Your task to perform on an android device: Open Google Maps and go to "Timeline" Image 0: 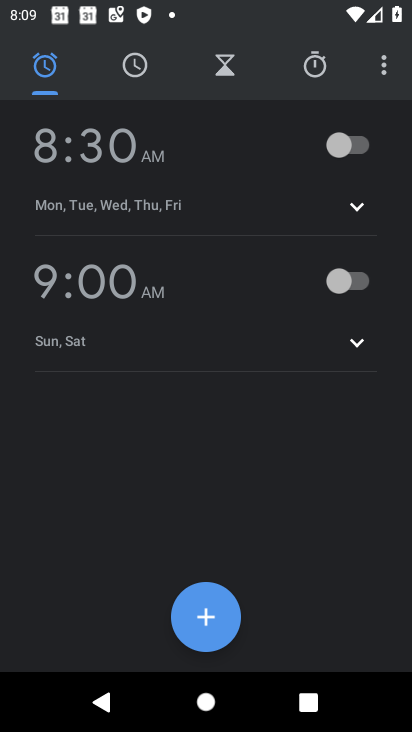
Step 0: press home button
Your task to perform on an android device: Open Google Maps and go to "Timeline" Image 1: 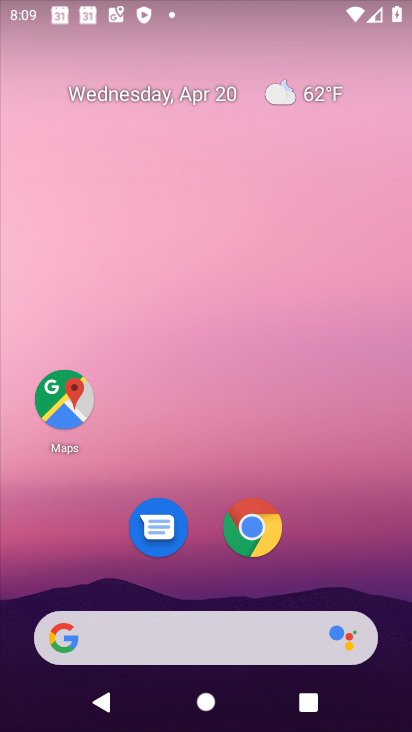
Step 1: click (65, 403)
Your task to perform on an android device: Open Google Maps and go to "Timeline" Image 2: 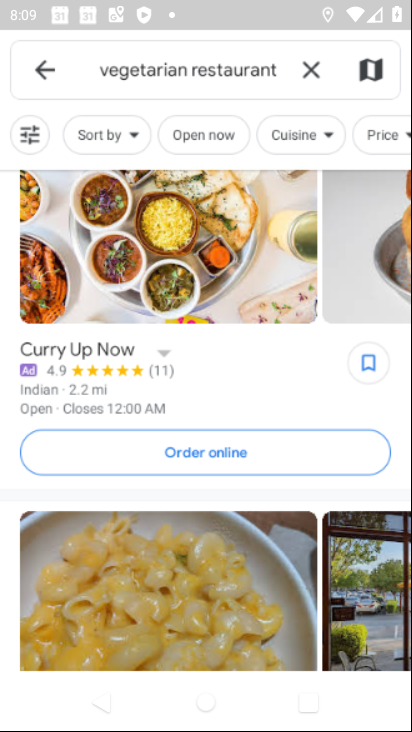
Step 2: click (319, 78)
Your task to perform on an android device: Open Google Maps and go to "Timeline" Image 3: 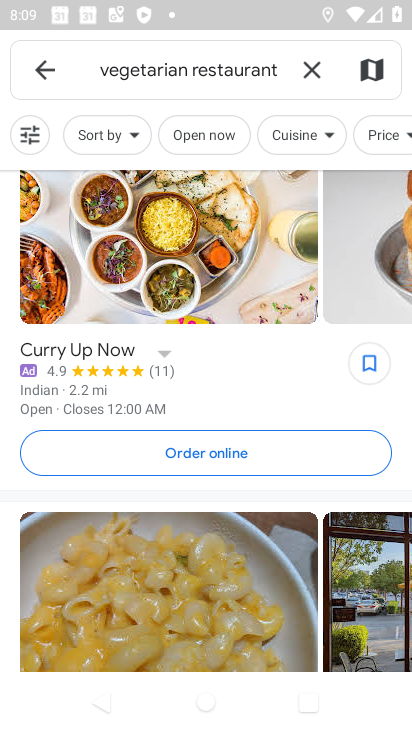
Step 3: click (317, 74)
Your task to perform on an android device: Open Google Maps and go to "Timeline" Image 4: 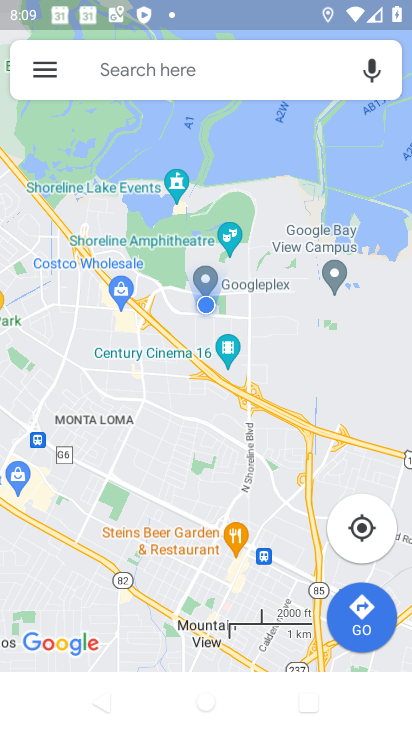
Step 4: click (38, 75)
Your task to perform on an android device: Open Google Maps and go to "Timeline" Image 5: 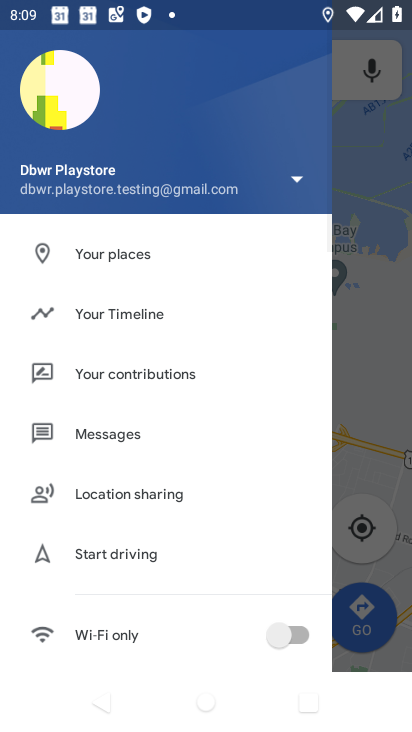
Step 5: click (133, 312)
Your task to perform on an android device: Open Google Maps and go to "Timeline" Image 6: 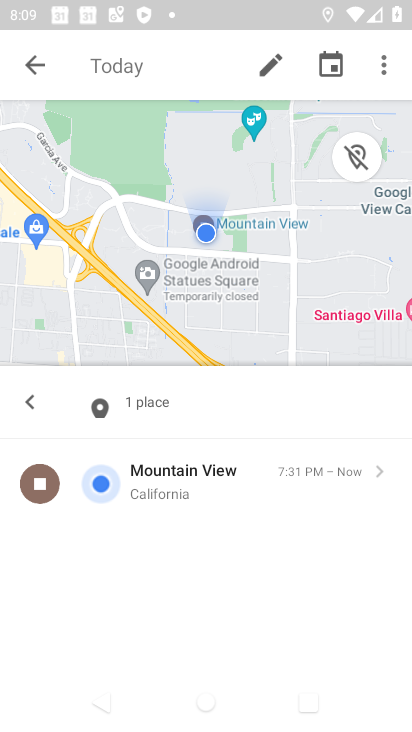
Step 6: task complete